Your task to perform on an android device: Open settings Image 0: 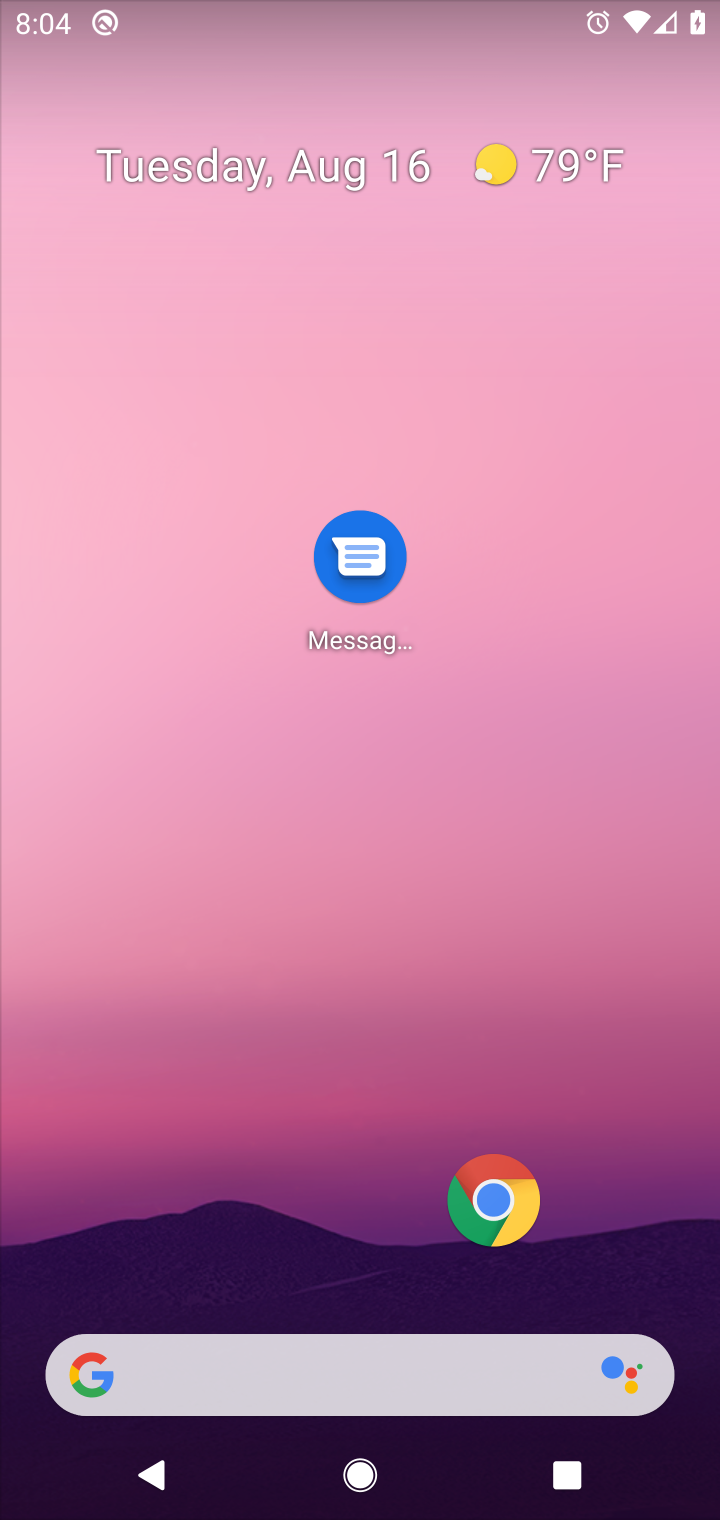
Step 0: drag from (47, 1487) to (528, 543)
Your task to perform on an android device: Open settings Image 1: 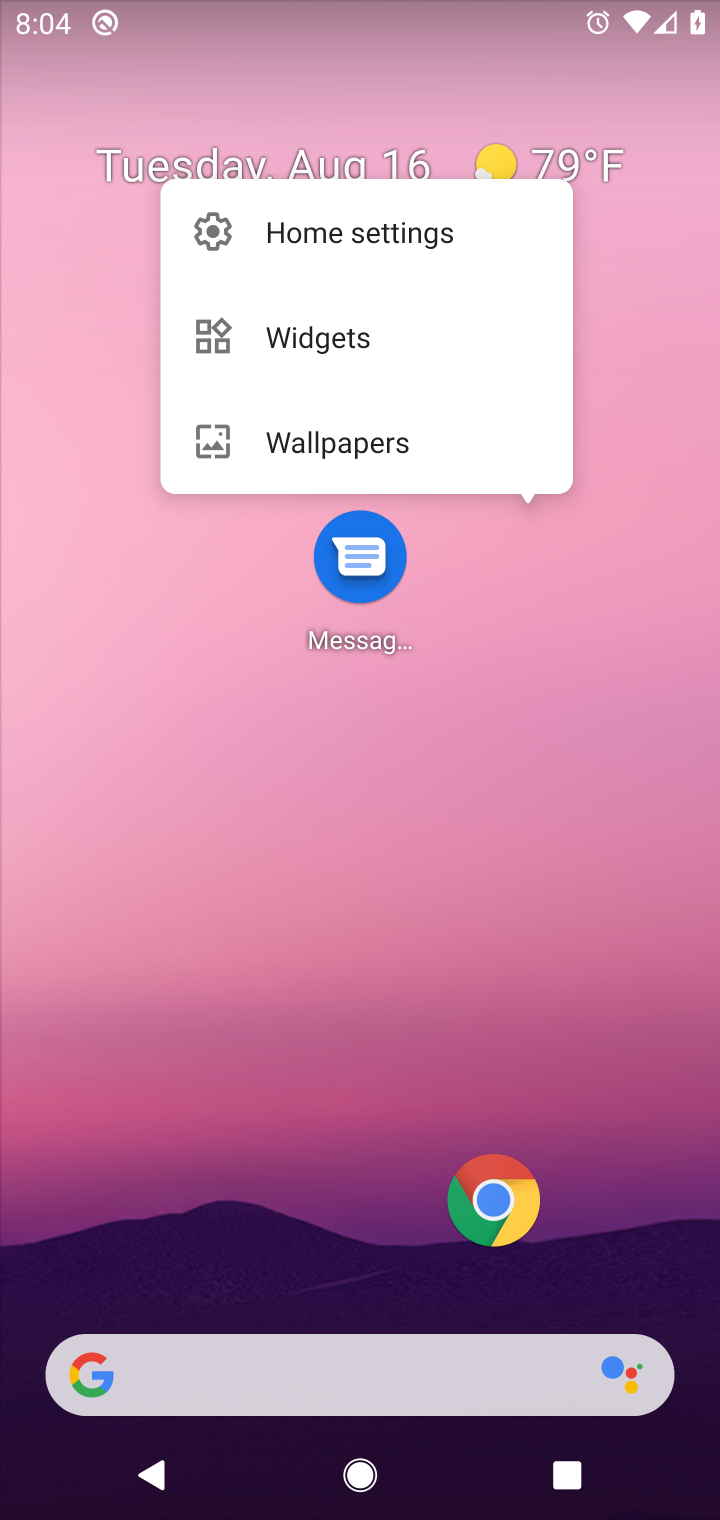
Step 1: drag from (65, 1447) to (431, 716)
Your task to perform on an android device: Open settings Image 2: 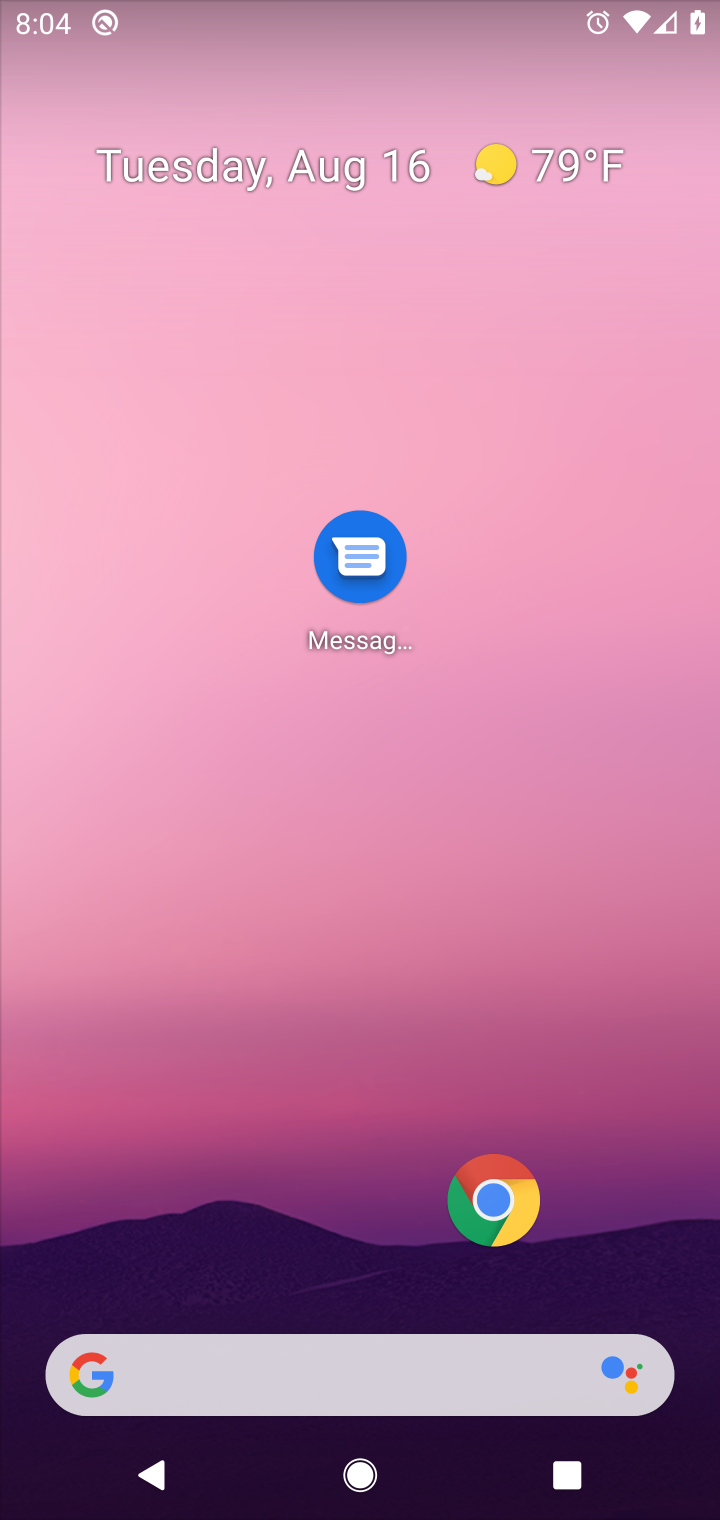
Step 2: click (374, 353)
Your task to perform on an android device: Open settings Image 3: 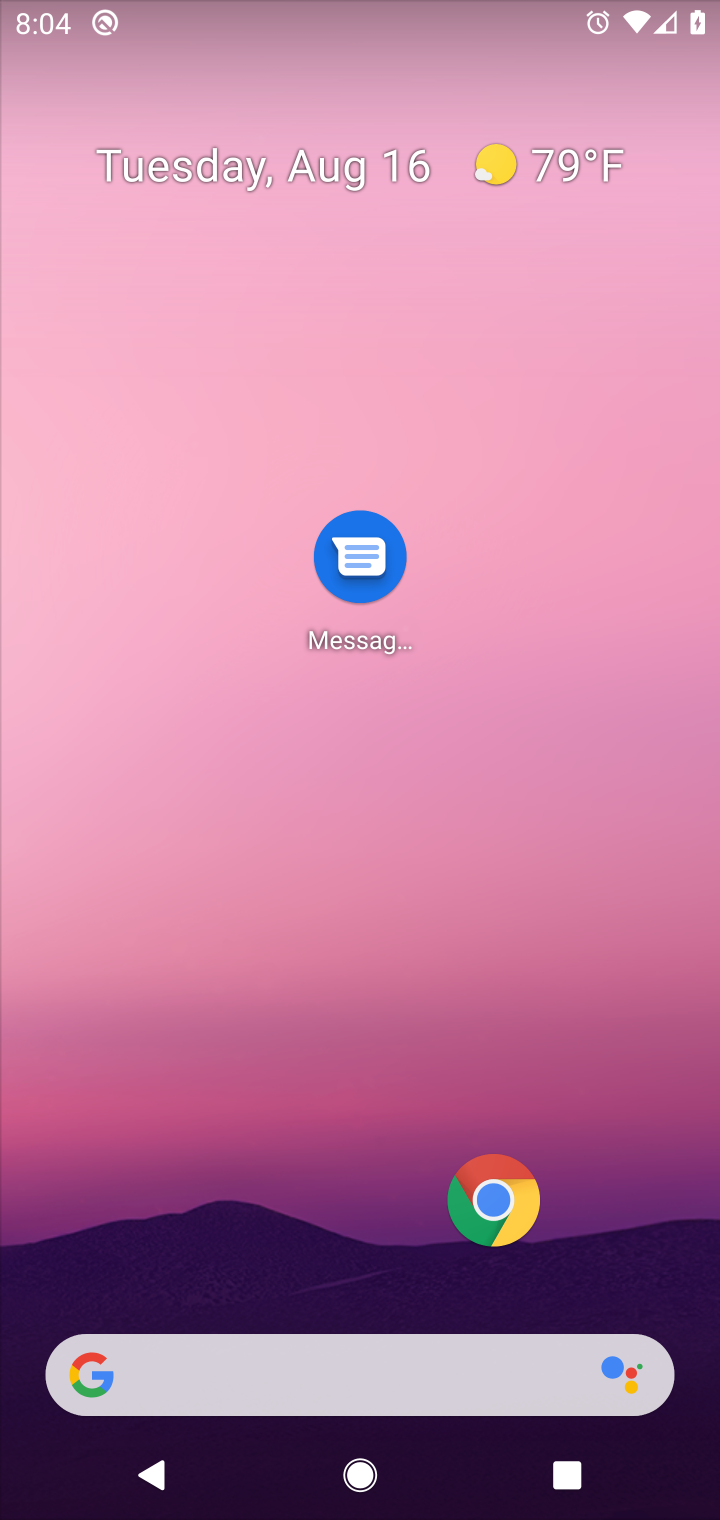
Step 3: drag from (89, 1269) to (84, 453)
Your task to perform on an android device: Open settings Image 4: 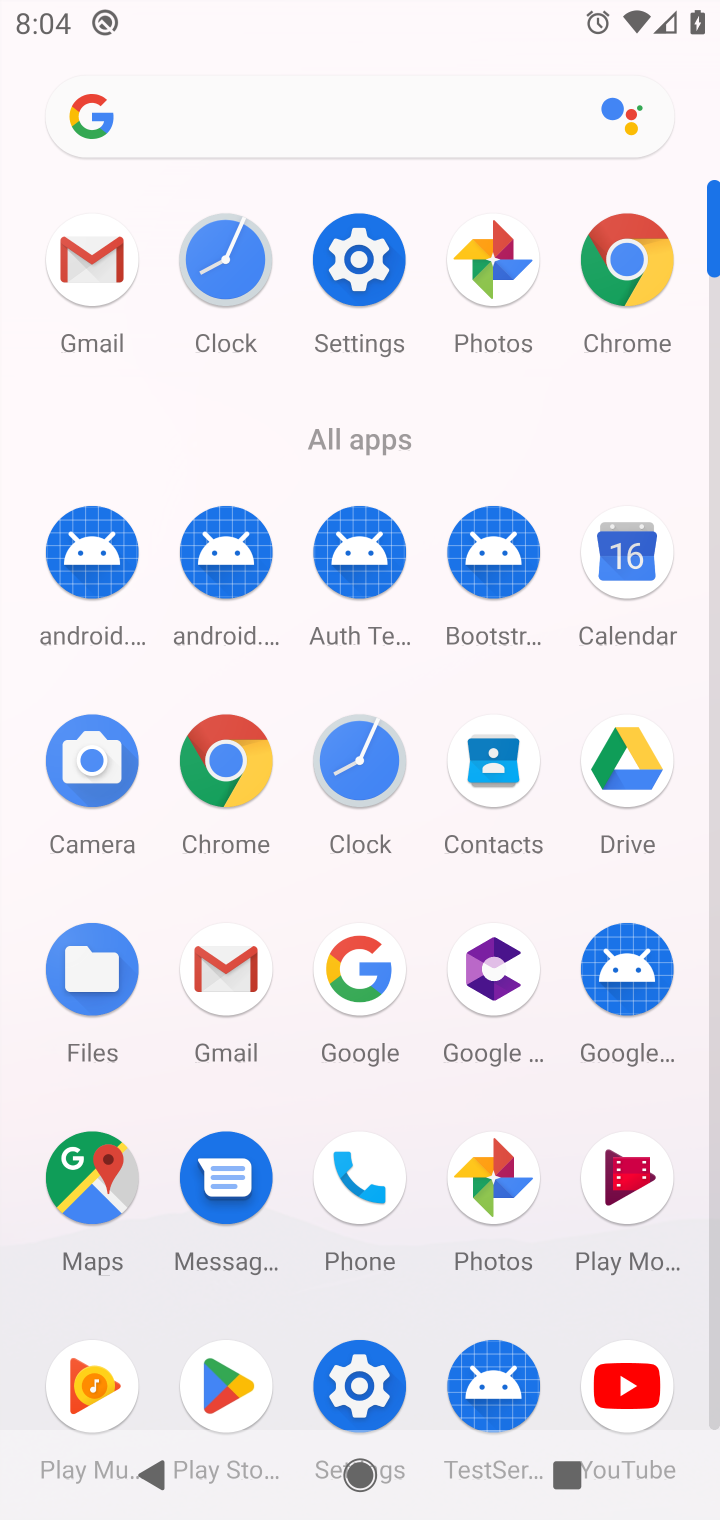
Step 4: click (373, 1387)
Your task to perform on an android device: Open settings Image 5: 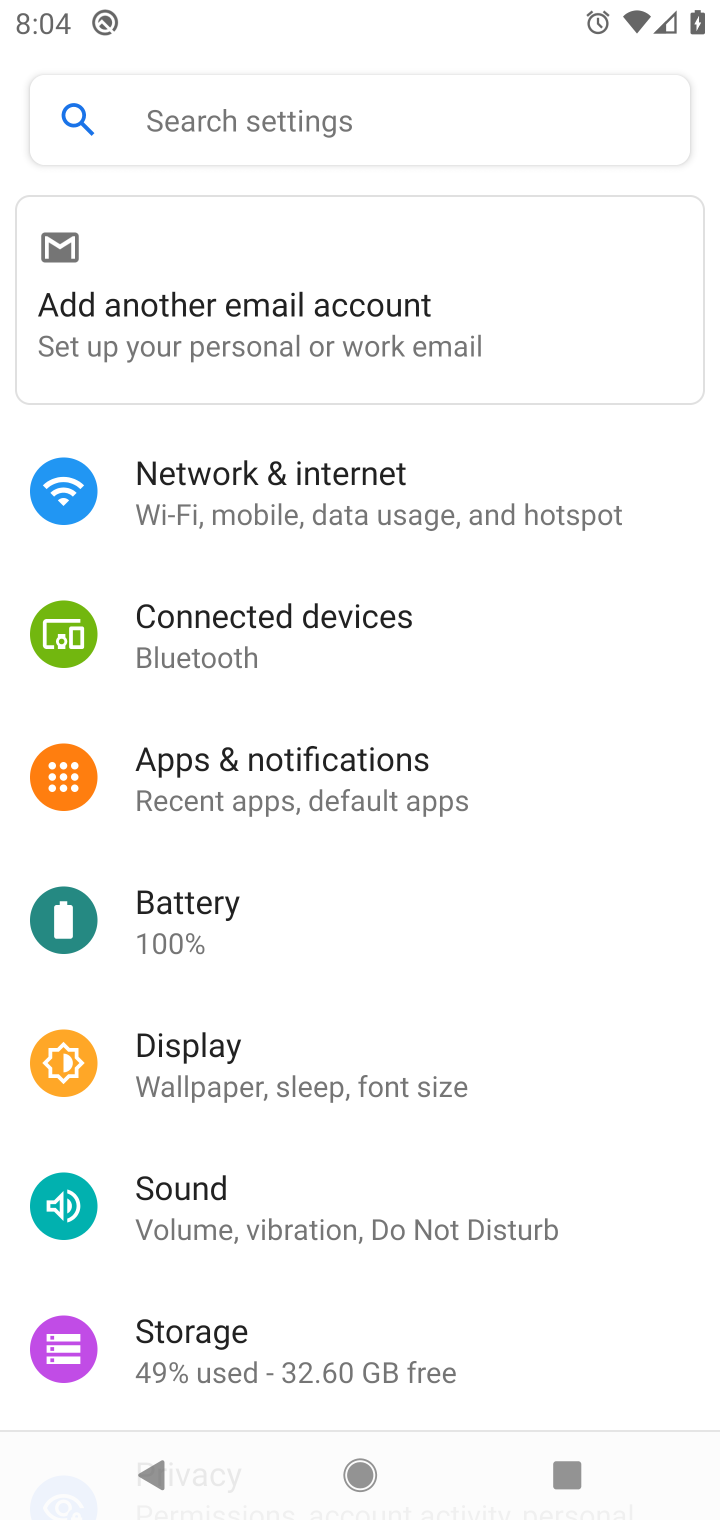
Step 5: task complete